Your task to perform on an android device: Search for Italian restaurants on Maps Image 0: 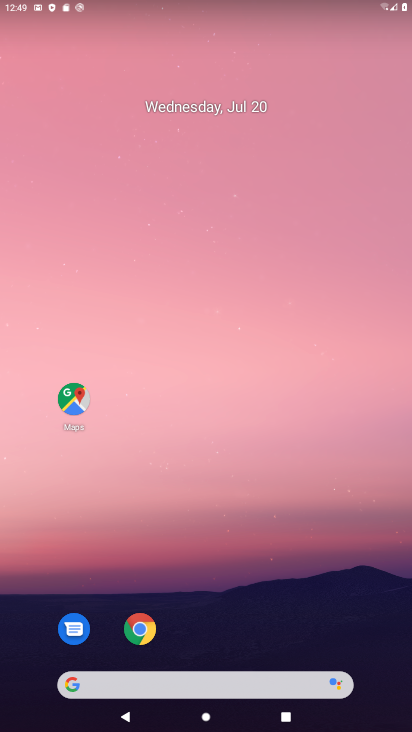
Step 0: click (74, 399)
Your task to perform on an android device: Search for Italian restaurants on Maps Image 1: 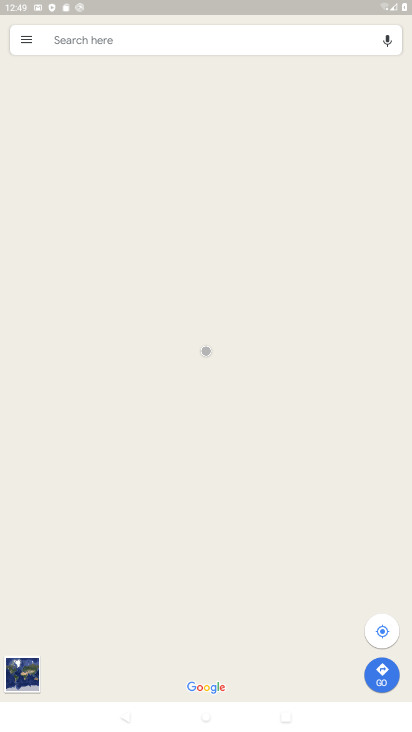
Step 1: click (149, 44)
Your task to perform on an android device: Search for Italian restaurants on Maps Image 2: 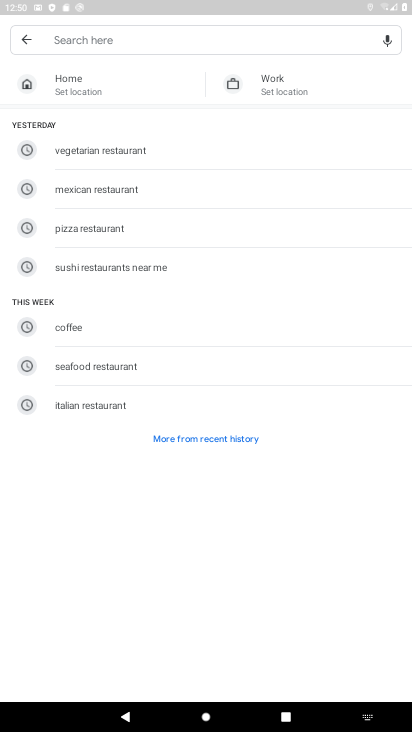
Step 2: type "Italian restaurants"
Your task to perform on an android device: Search for Italian restaurants on Maps Image 3: 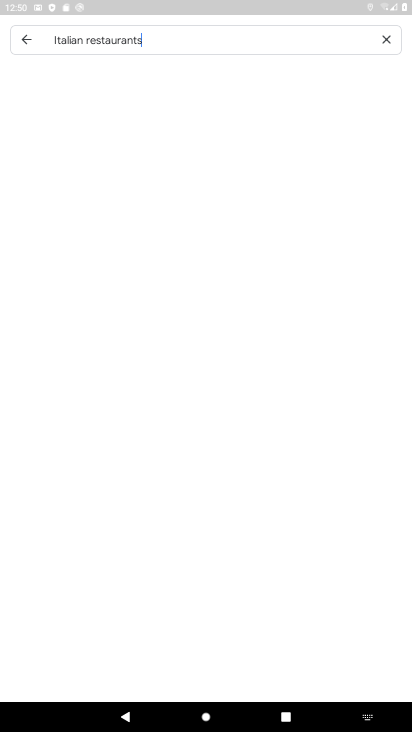
Step 3: type ""
Your task to perform on an android device: Search for Italian restaurants on Maps Image 4: 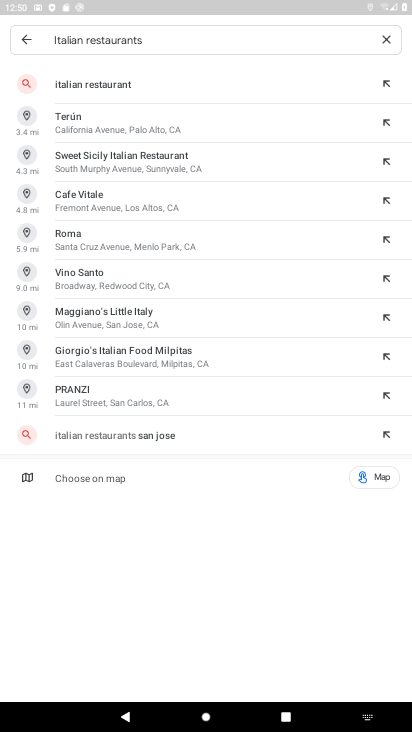
Step 4: click (115, 86)
Your task to perform on an android device: Search for Italian restaurants on Maps Image 5: 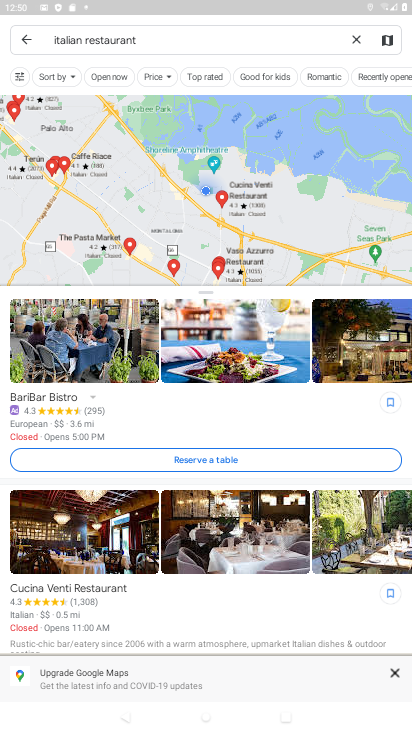
Step 5: task complete